Your task to perform on an android device: Open the map Image 0: 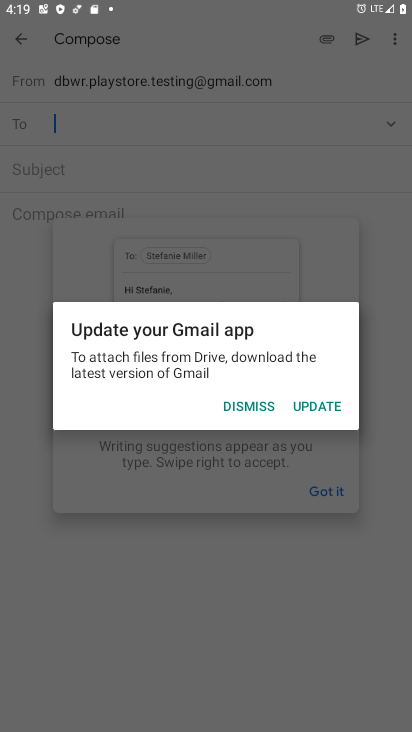
Step 0: press home button
Your task to perform on an android device: Open the map Image 1: 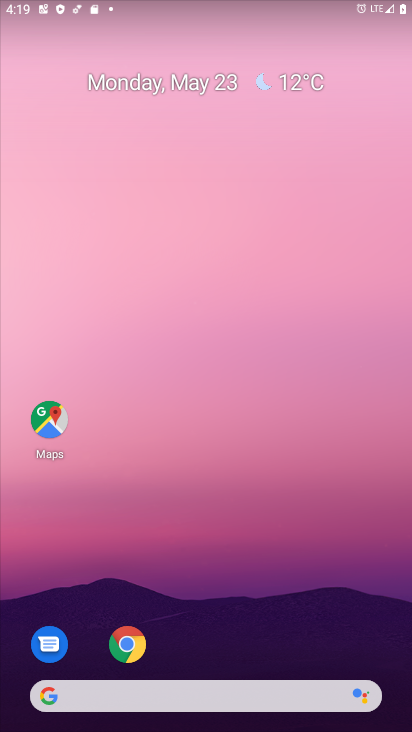
Step 1: click (59, 423)
Your task to perform on an android device: Open the map Image 2: 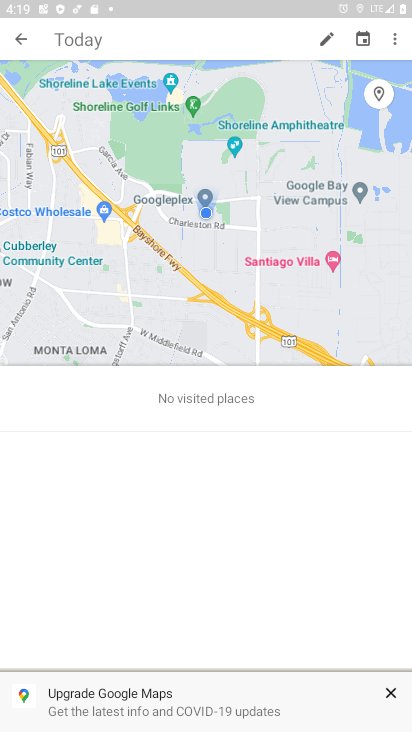
Step 2: task complete